Your task to perform on an android device: turn off translation in the chrome app Image 0: 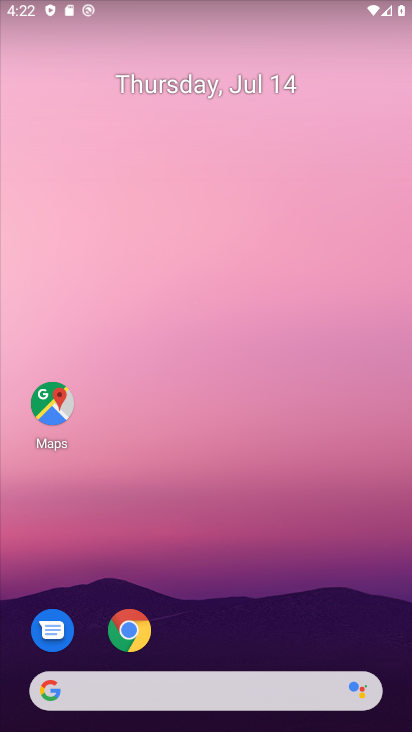
Step 0: drag from (284, 678) to (202, 25)
Your task to perform on an android device: turn off translation in the chrome app Image 1: 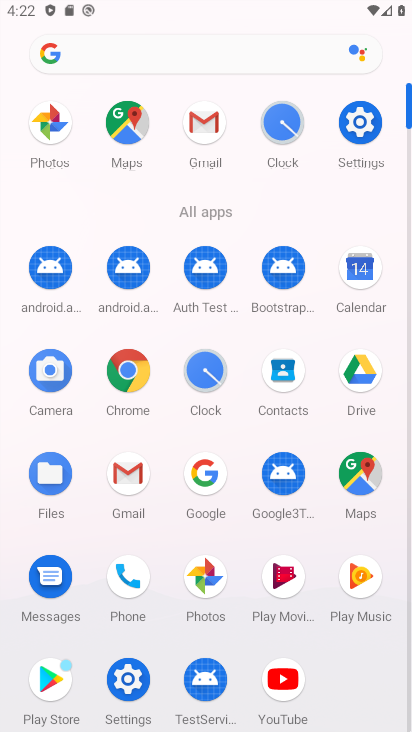
Step 1: click (115, 375)
Your task to perform on an android device: turn off translation in the chrome app Image 2: 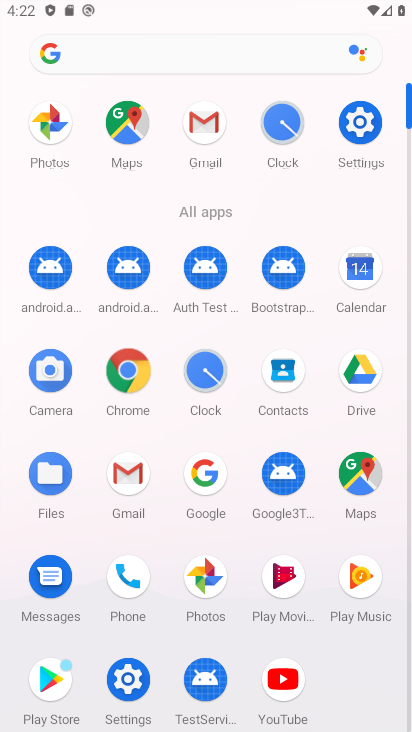
Step 2: click (122, 374)
Your task to perform on an android device: turn off translation in the chrome app Image 3: 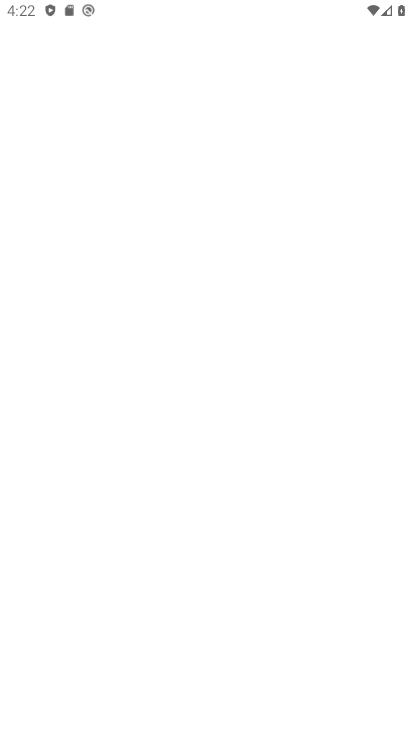
Step 3: click (127, 375)
Your task to perform on an android device: turn off translation in the chrome app Image 4: 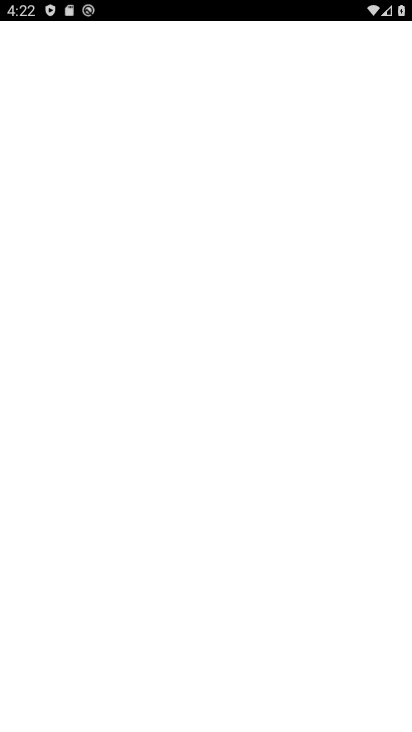
Step 4: click (128, 377)
Your task to perform on an android device: turn off translation in the chrome app Image 5: 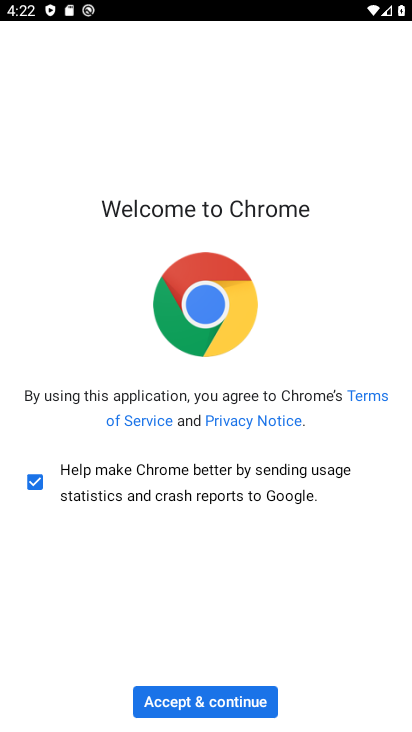
Step 5: click (195, 701)
Your task to perform on an android device: turn off translation in the chrome app Image 6: 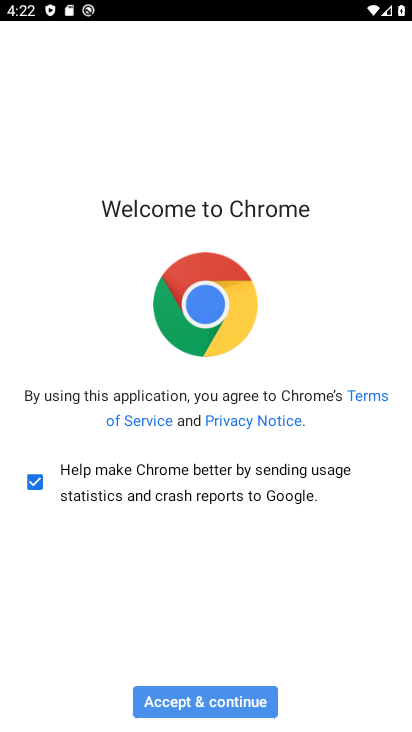
Step 6: click (200, 698)
Your task to perform on an android device: turn off translation in the chrome app Image 7: 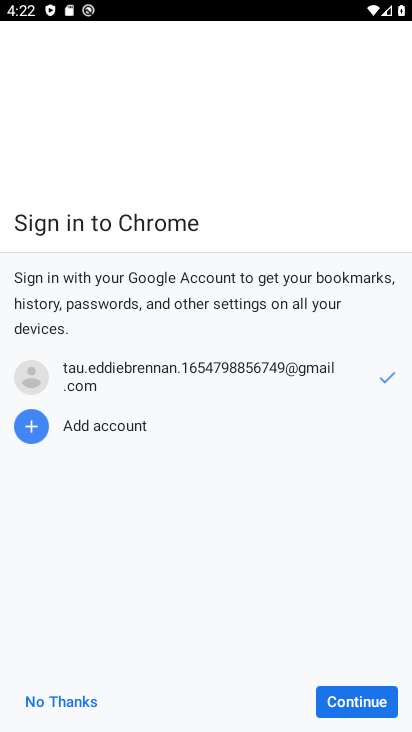
Step 7: click (366, 698)
Your task to perform on an android device: turn off translation in the chrome app Image 8: 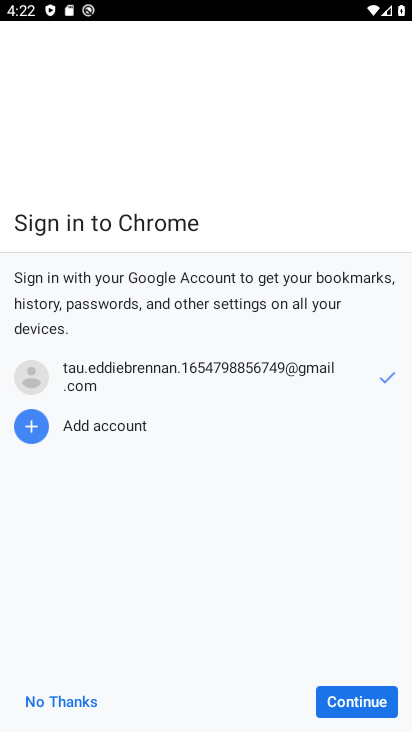
Step 8: click (370, 702)
Your task to perform on an android device: turn off translation in the chrome app Image 9: 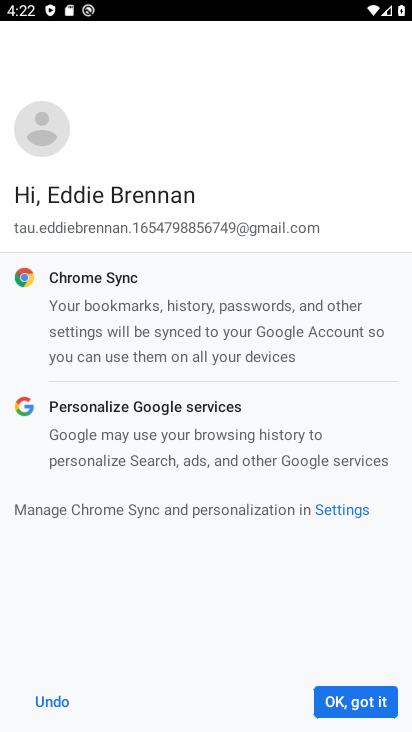
Step 9: click (371, 703)
Your task to perform on an android device: turn off translation in the chrome app Image 10: 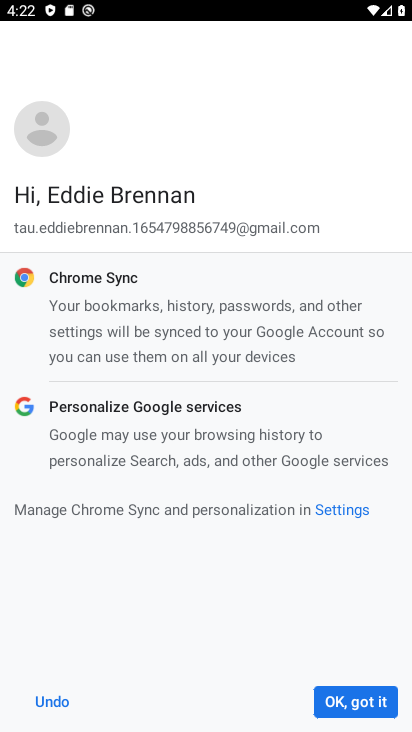
Step 10: click (372, 703)
Your task to perform on an android device: turn off translation in the chrome app Image 11: 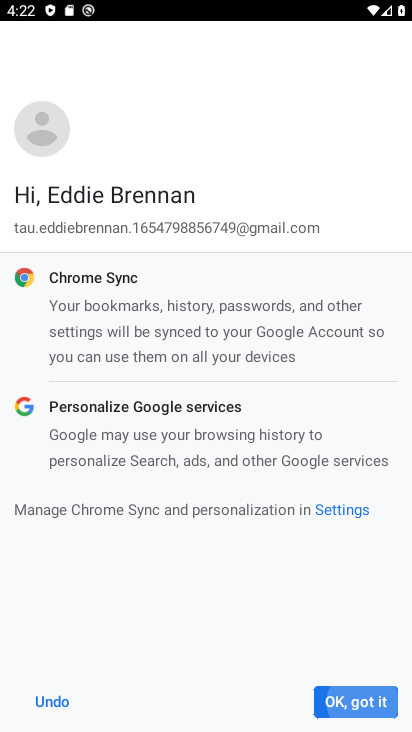
Step 11: click (372, 703)
Your task to perform on an android device: turn off translation in the chrome app Image 12: 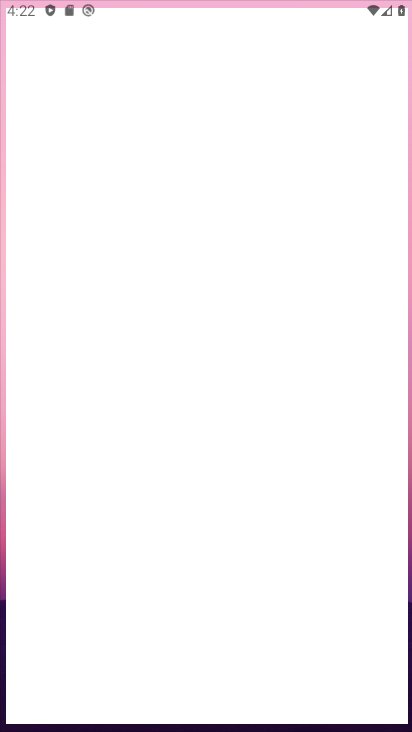
Step 12: click (373, 703)
Your task to perform on an android device: turn off translation in the chrome app Image 13: 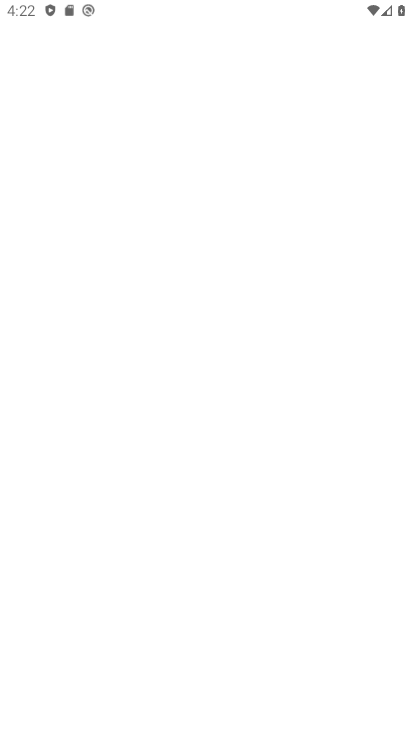
Step 13: click (373, 703)
Your task to perform on an android device: turn off translation in the chrome app Image 14: 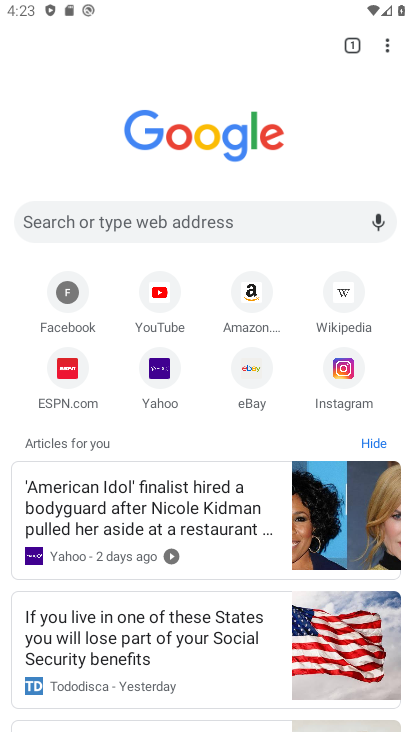
Step 14: drag from (392, 41) to (225, 378)
Your task to perform on an android device: turn off translation in the chrome app Image 15: 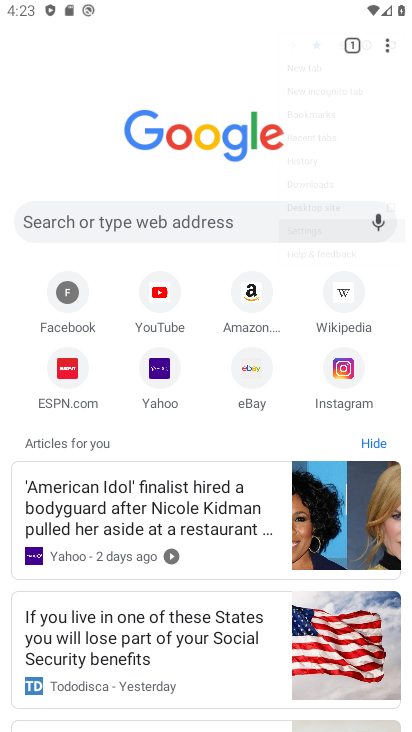
Step 15: click (225, 380)
Your task to perform on an android device: turn off translation in the chrome app Image 16: 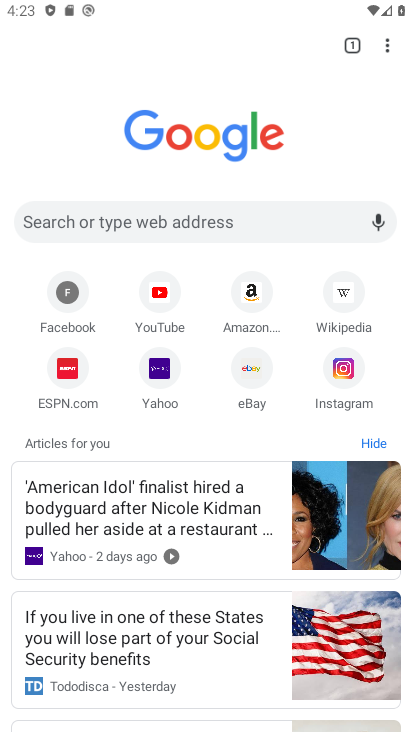
Step 16: click (225, 380)
Your task to perform on an android device: turn off translation in the chrome app Image 17: 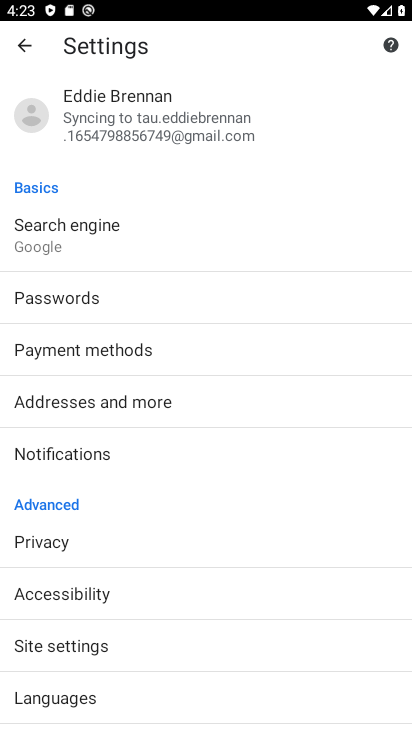
Step 17: drag from (110, 597) to (112, 364)
Your task to perform on an android device: turn off translation in the chrome app Image 18: 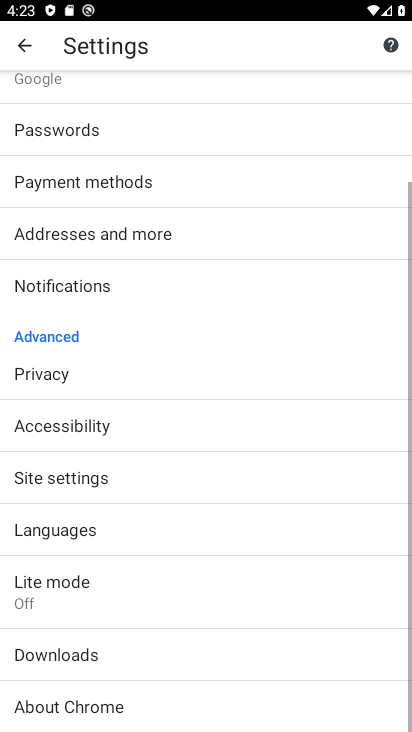
Step 18: drag from (145, 583) to (169, 356)
Your task to perform on an android device: turn off translation in the chrome app Image 19: 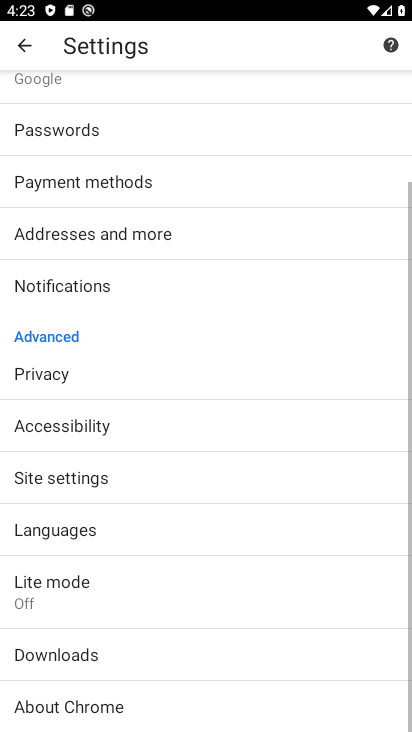
Step 19: click (72, 530)
Your task to perform on an android device: turn off translation in the chrome app Image 20: 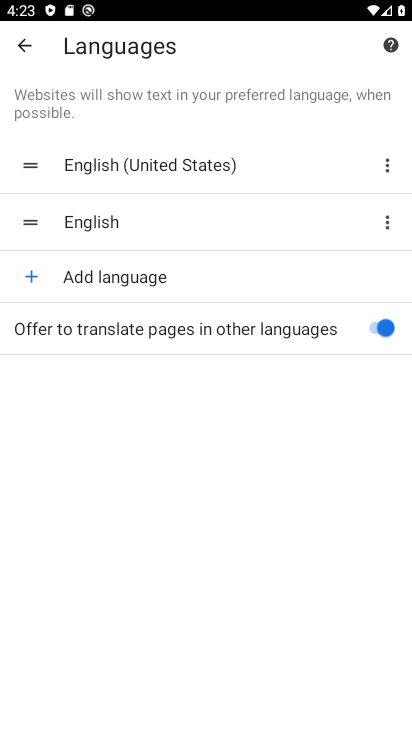
Step 20: click (386, 326)
Your task to perform on an android device: turn off translation in the chrome app Image 21: 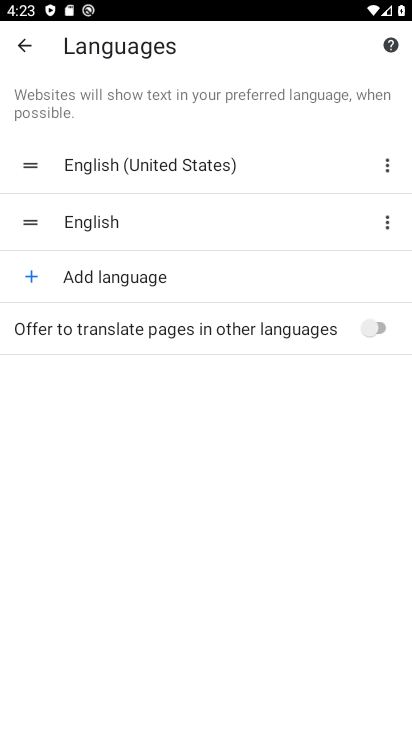
Step 21: task complete